Your task to perform on an android device: Toggle the flashlight Image 0: 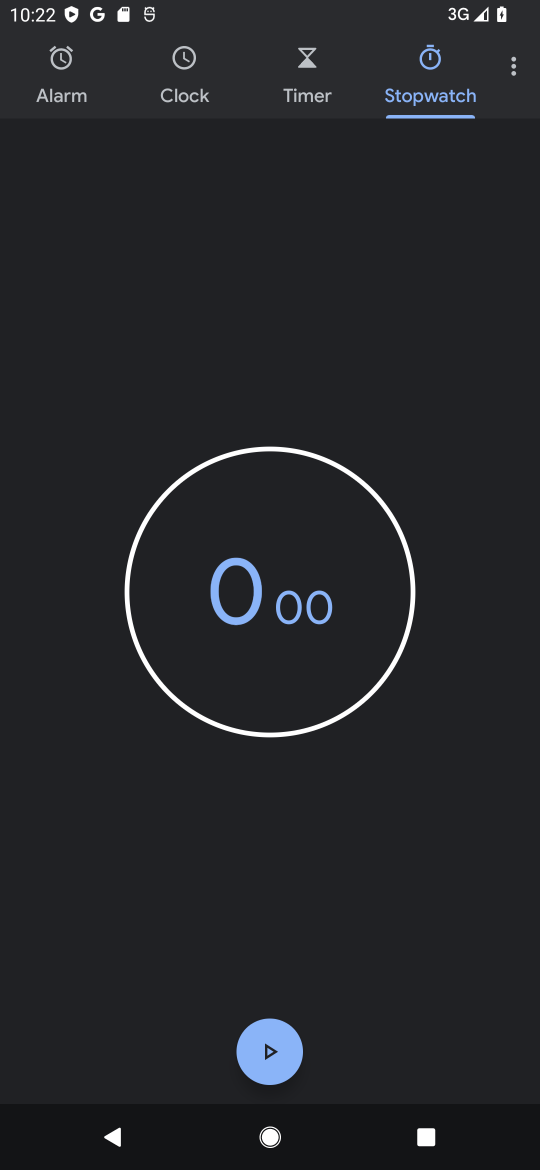
Step 0: press home button
Your task to perform on an android device: Toggle the flashlight Image 1: 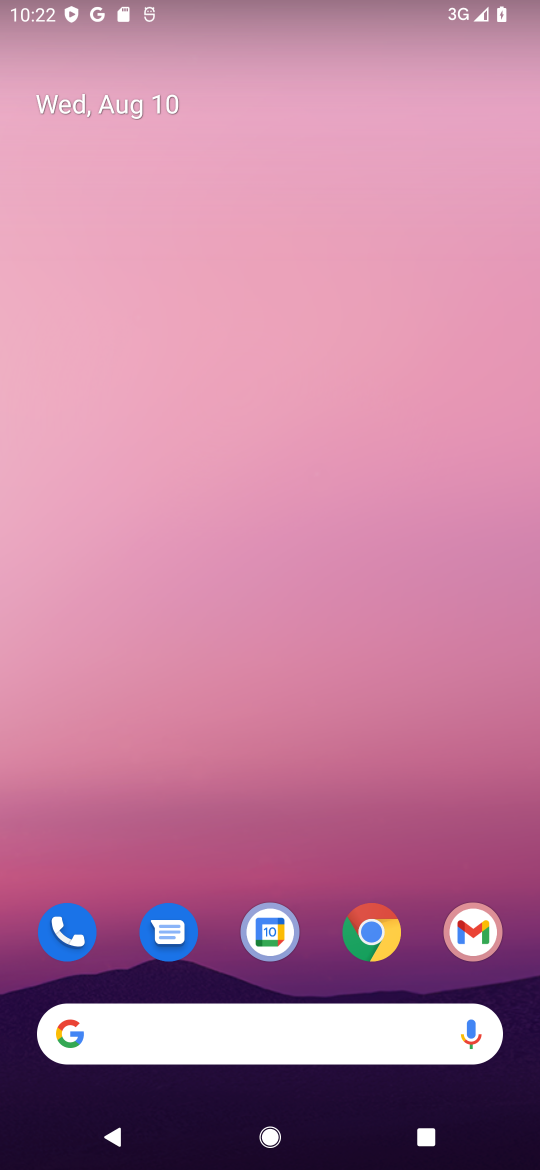
Step 1: drag from (319, 824) to (369, 75)
Your task to perform on an android device: Toggle the flashlight Image 2: 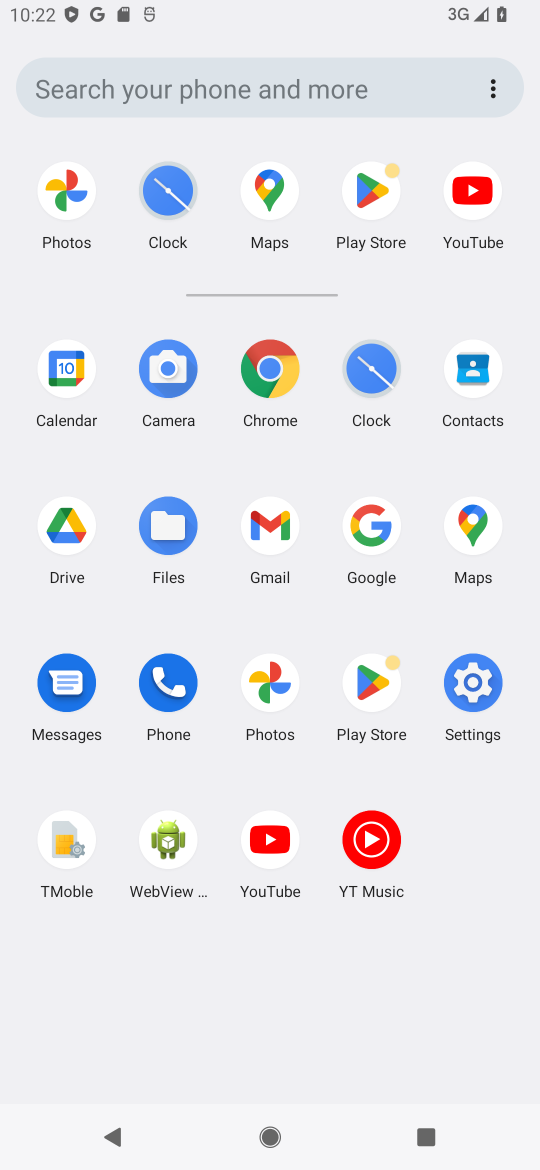
Step 2: click (481, 681)
Your task to perform on an android device: Toggle the flashlight Image 3: 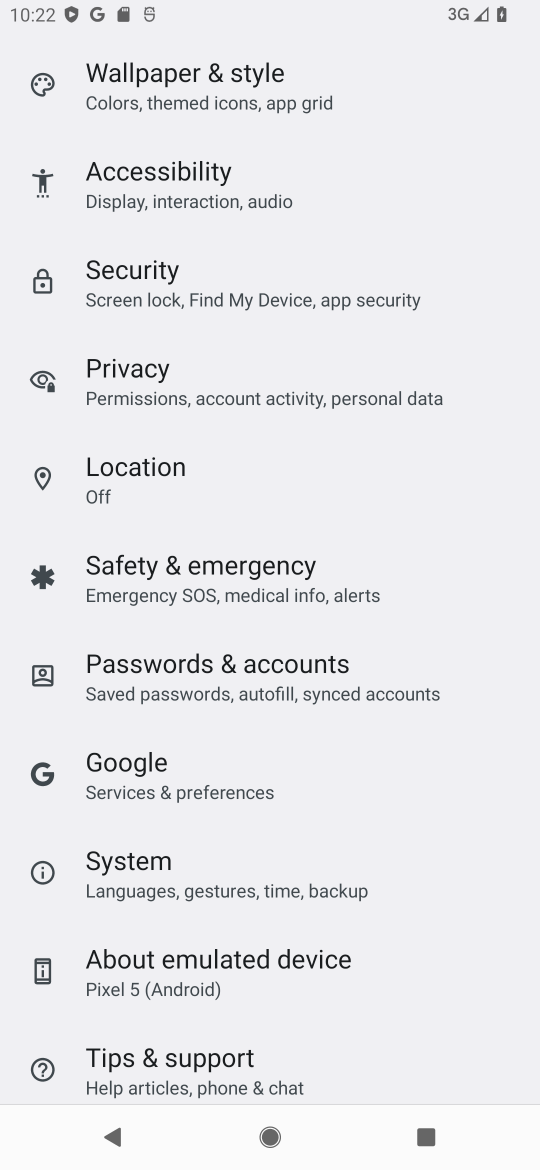
Step 3: drag from (314, 217) to (248, 633)
Your task to perform on an android device: Toggle the flashlight Image 4: 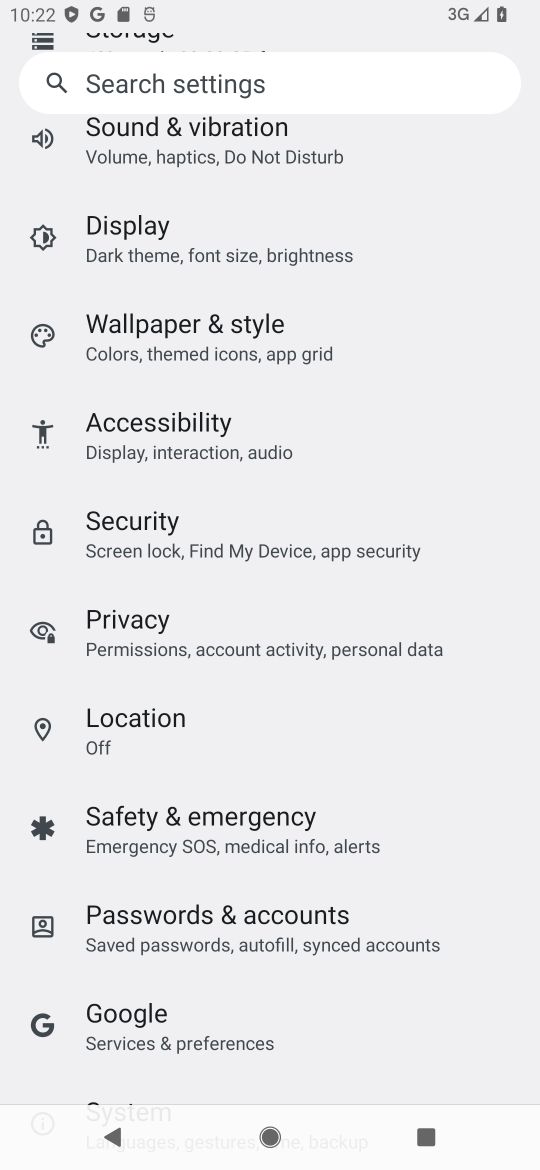
Step 4: click (126, 229)
Your task to perform on an android device: Toggle the flashlight Image 5: 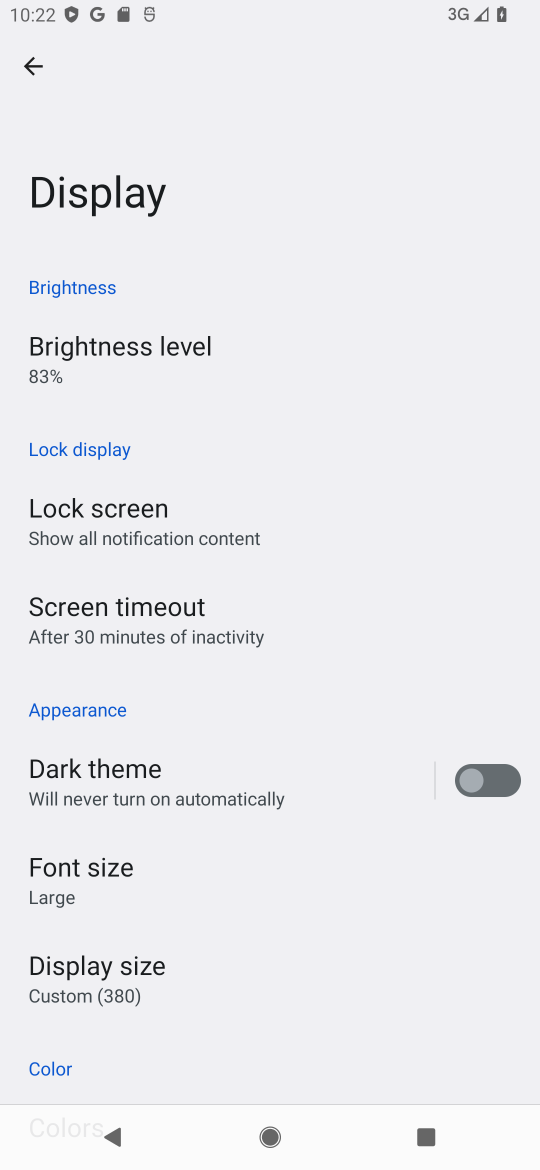
Step 5: task complete